Your task to perform on an android device: toggle pop-ups in chrome Image 0: 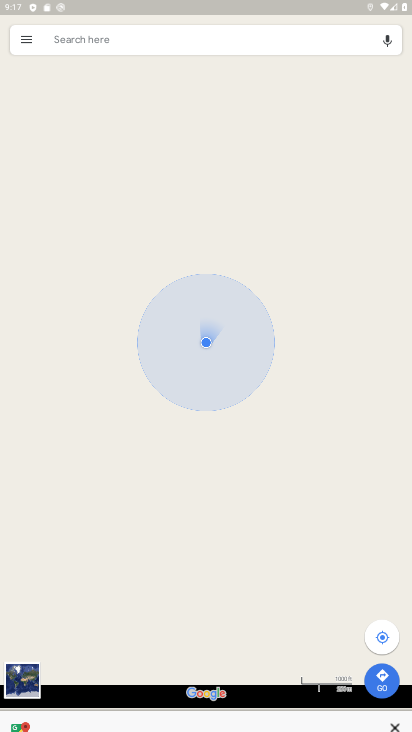
Step 0: press home button
Your task to perform on an android device: toggle pop-ups in chrome Image 1: 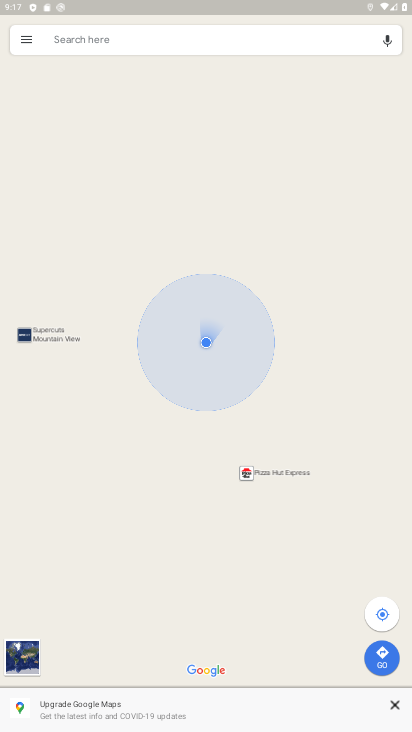
Step 1: press home button
Your task to perform on an android device: toggle pop-ups in chrome Image 2: 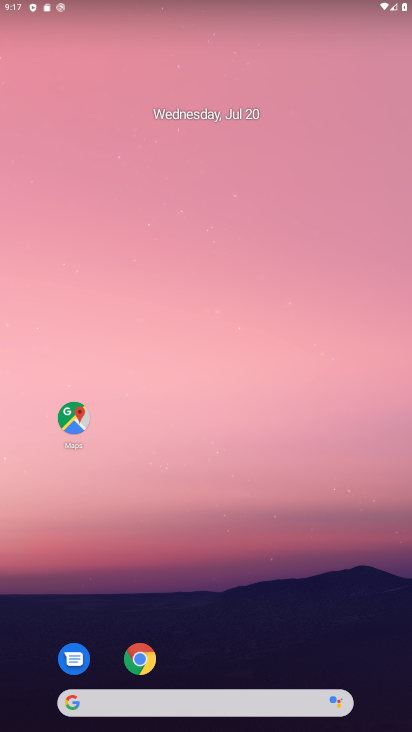
Step 2: drag from (312, 600) to (131, 81)
Your task to perform on an android device: toggle pop-ups in chrome Image 3: 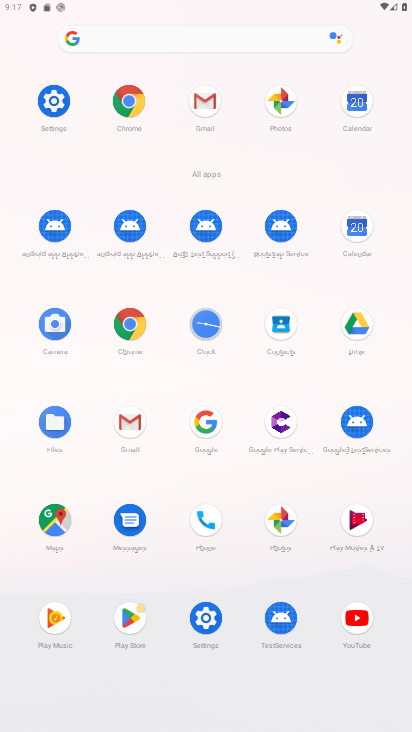
Step 3: click (132, 331)
Your task to perform on an android device: toggle pop-ups in chrome Image 4: 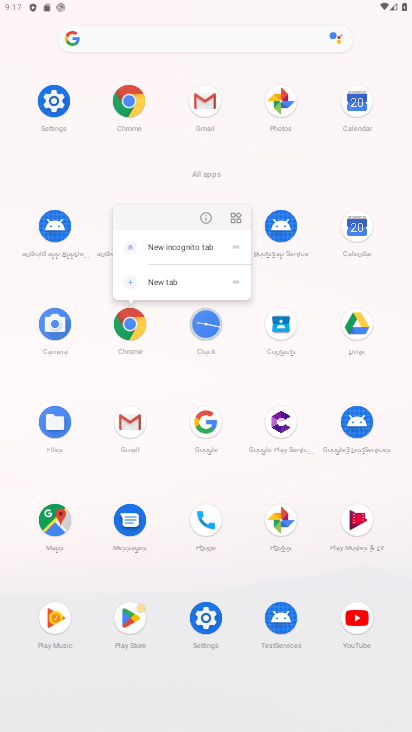
Step 4: click (130, 324)
Your task to perform on an android device: toggle pop-ups in chrome Image 5: 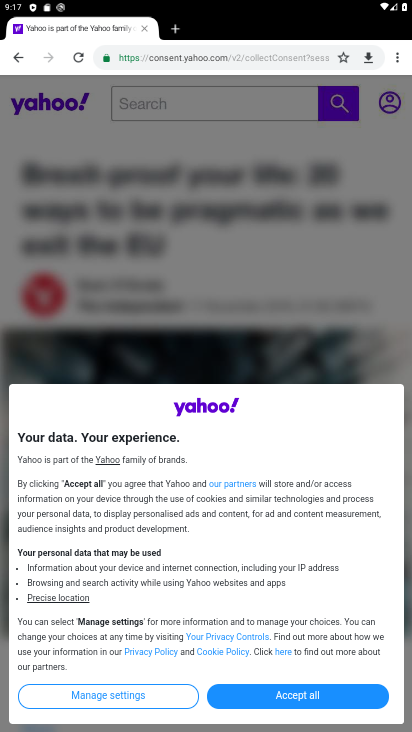
Step 5: drag from (395, 56) to (290, 371)
Your task to perform on an android device: toggle pop-ups in chrome Image 6: 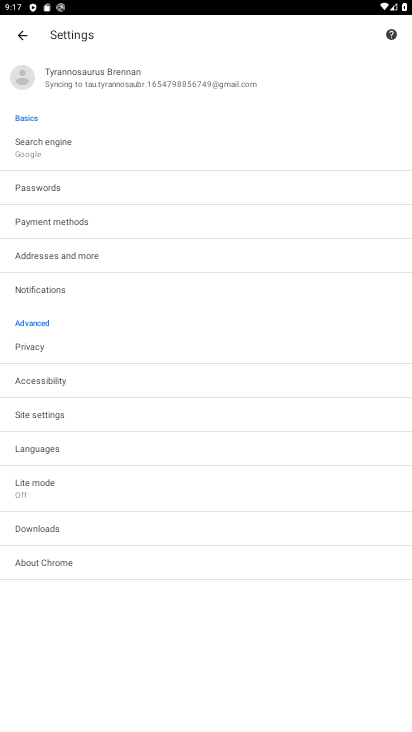
Step 6: click (33, 419)
Your task to perform on an android device: toggle pop-ups in chrome Image 7: 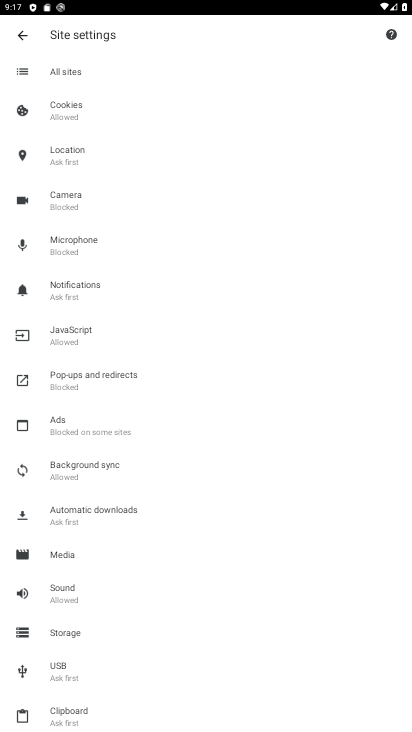
Step 7: click (130, 366)
Your task to perform on an android device: toggle pop-ups in chrome Image 8: 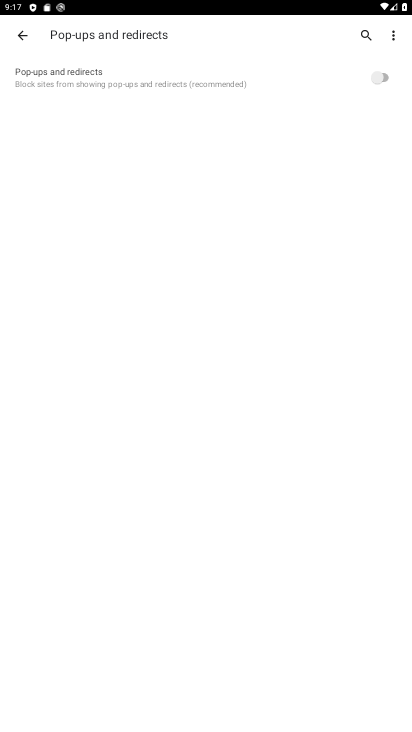
Step 8: click (376, 73)
Your task to perform on an android device: toggle pop-ups in chrome Image 9: 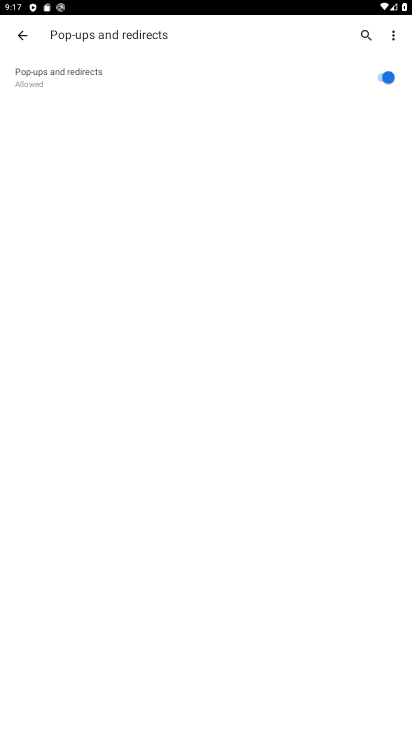
Step 9: task complete